Your task to perform on an android device: Open Google Chrome Image 0: 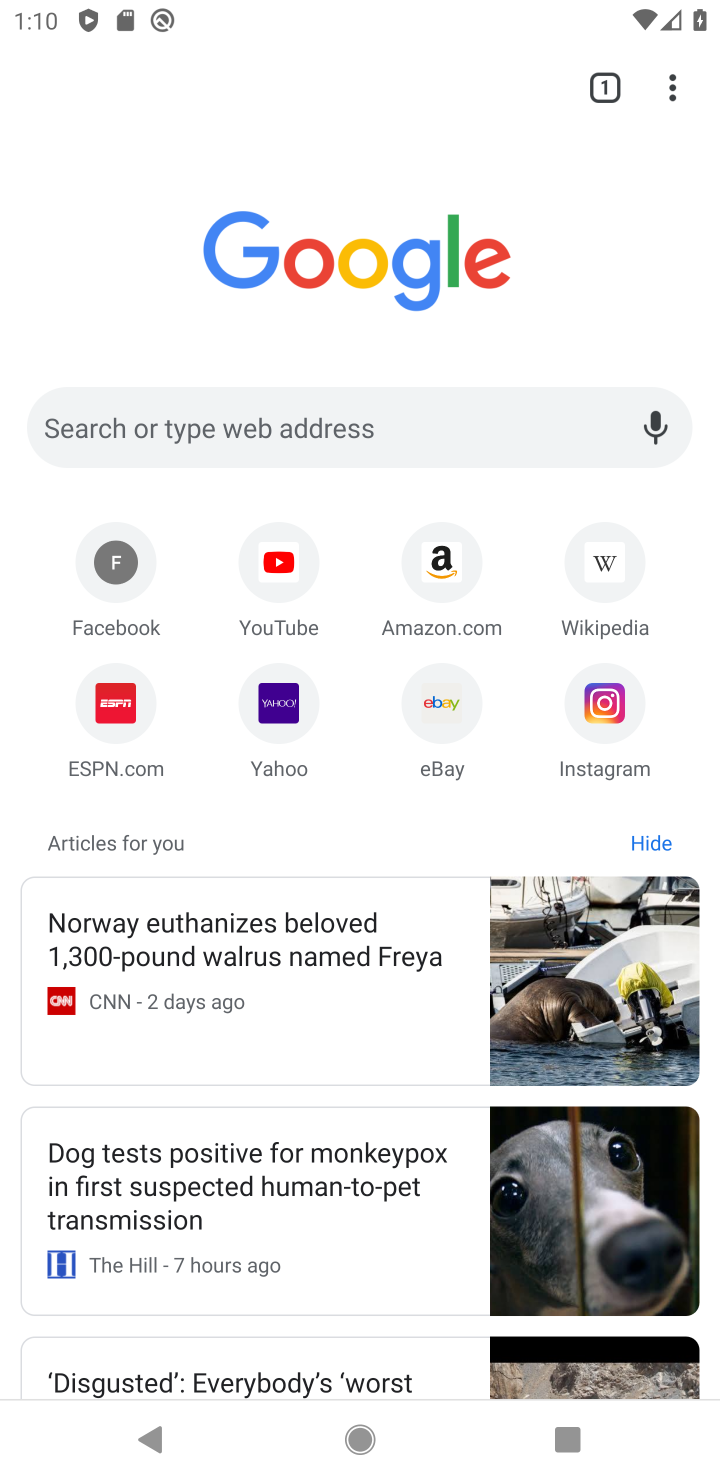
Step 0: task complete